Your task to perform on an android device: Open settings Image 0: 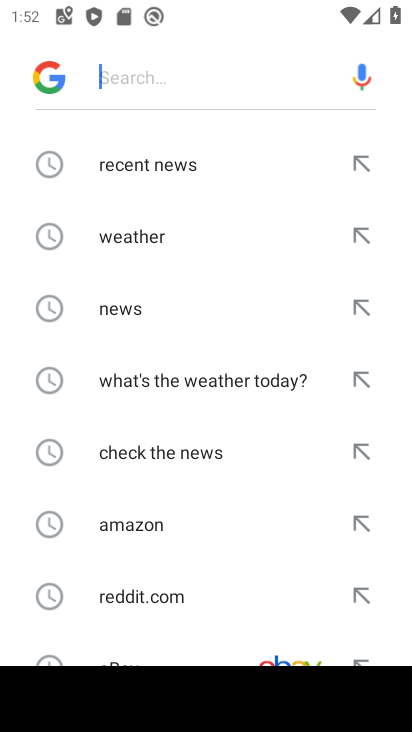
Step 0: press back button
Your task to perform on an android device: Open settings Image 1: 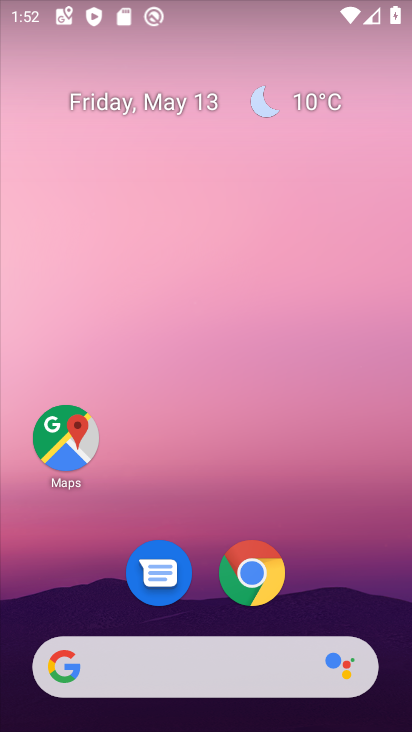
Step 1: drag from (303, 561) to (256, 38)
Your task to perform on an android device: Open settings Image 2: 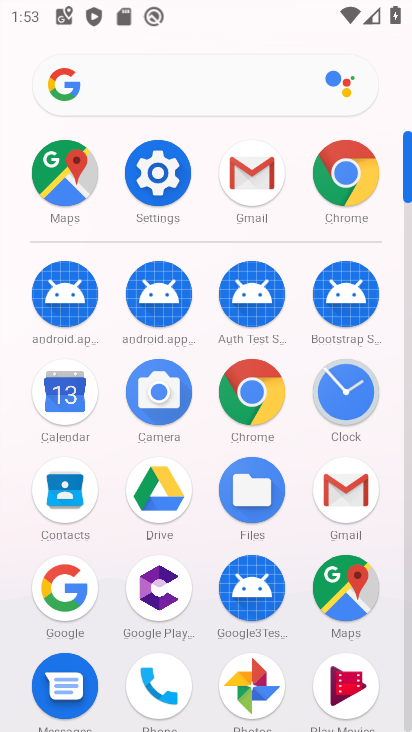
Step 2: click (147, 174)
Your task to perform on an android device: Open settings Image 3: 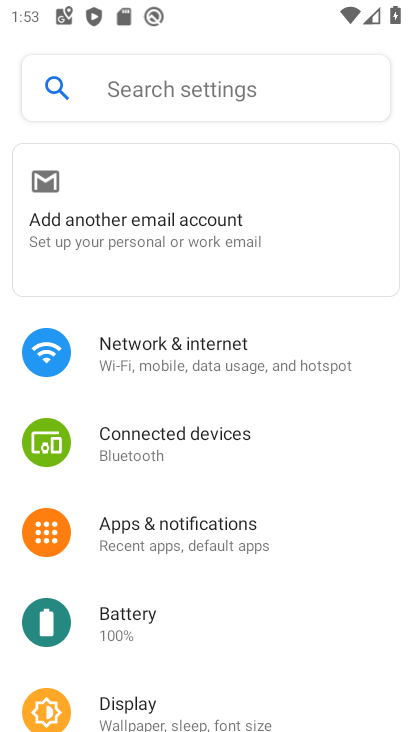
Step 3: task complete